Your task to perform on an android device: open the mobile data screen to see how much data has been used Image 0: 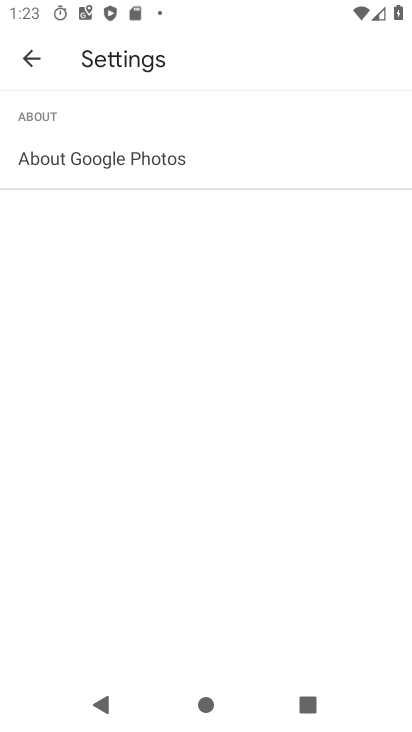
Step 0: press home button
Your task to perform on an android device: open the mobile data screen to see how much data has been used Image 1: 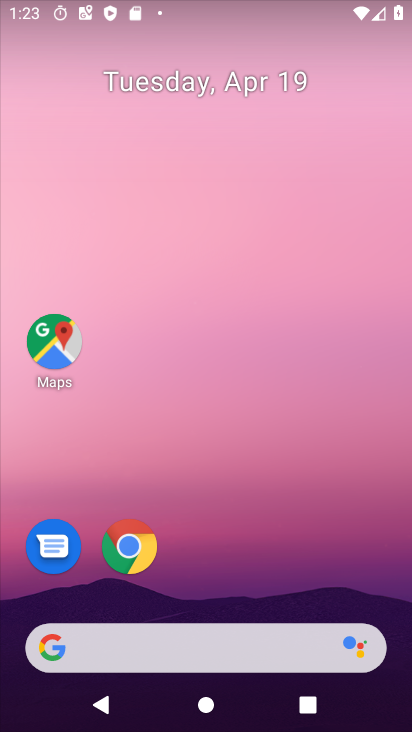
Step 1: drag from (212, 551) to (301, 30)
Your task to perform on an android device: open the mobile data screen to see how much data has been used Image 2: 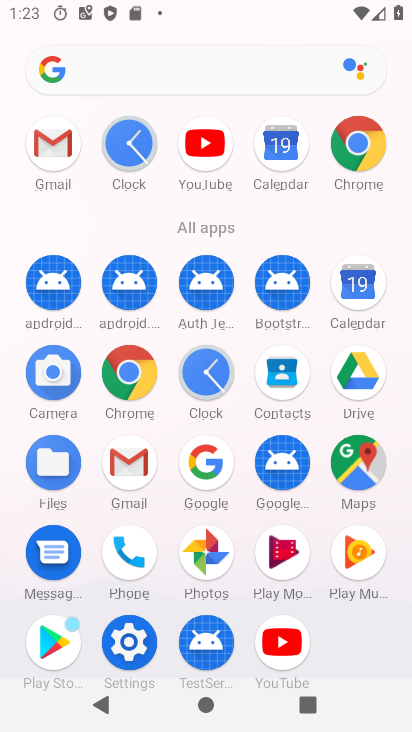
Step 2: click (137, 636)
Your task to perform on an android device: open the mobile data screen to see how much data has been used Image 3: 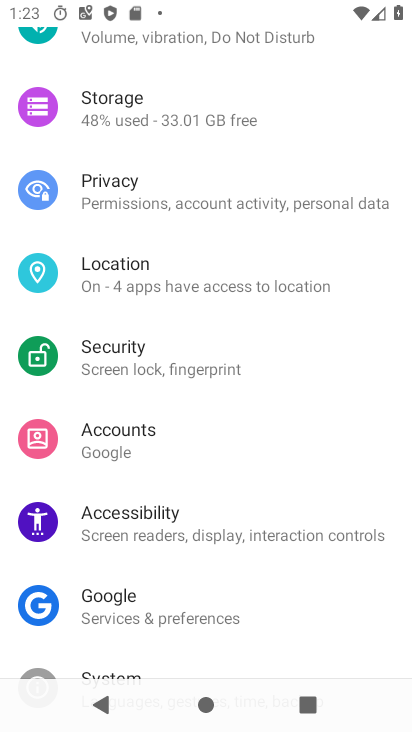
Step 3: drag from (229, 124) to (182, 686)
Your task to perform on an android device: open the mobile data screen to see how much data has been used Image 4: 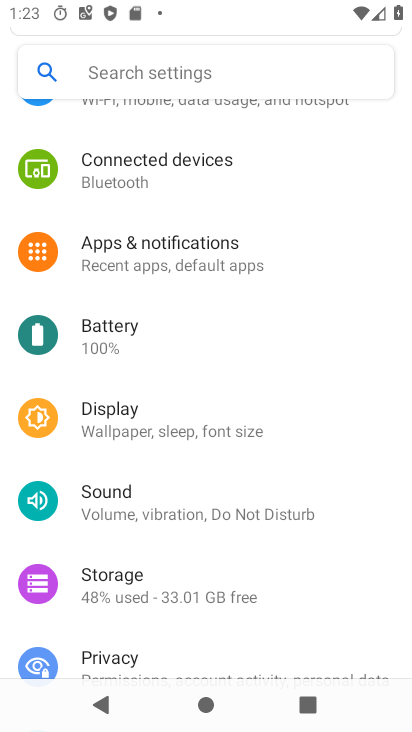
Step 4: drag from (212, 197) to (212, 686)
Your task to perform on an android device: open the mobile data screen to see how much data has been used Image 5: 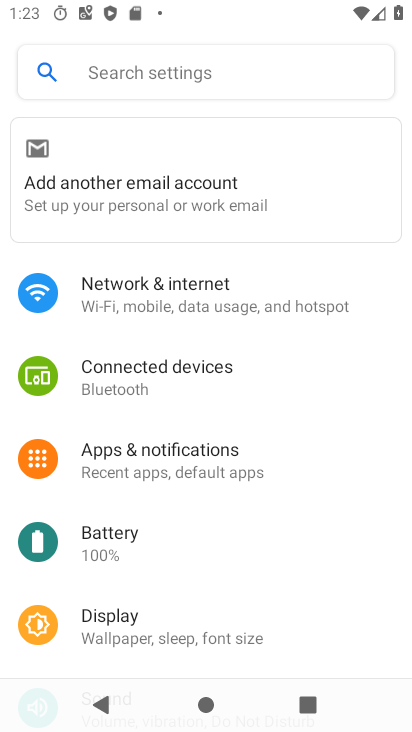
Step 5: click (193, 295)
Your task to perform on an android device: open the mobile data screen to see how much data has been used Image 6: 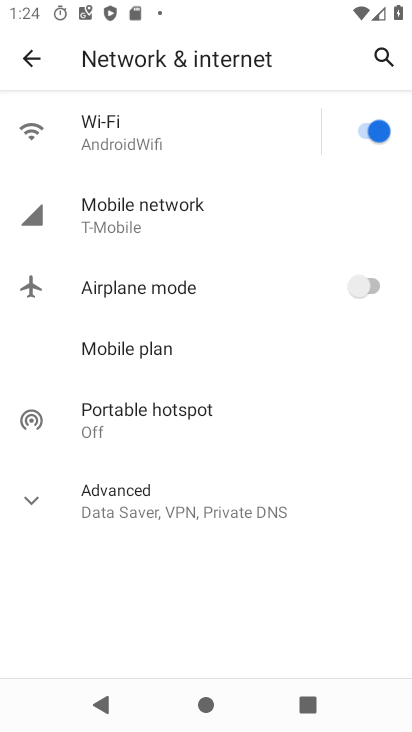
Step 6: click (191, 226)
Your task to perform on an android device: open the mobile data screen to see how much data has been used Image 7: 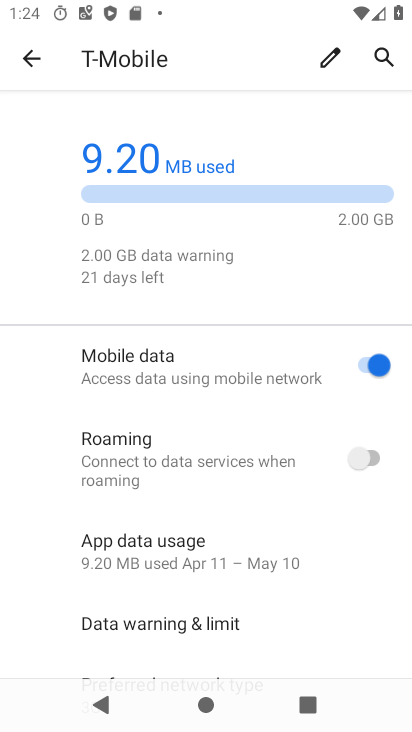
Step 7: click (168, 557)
Your task to perform on an android device: open the mobile data screen to see how much data has been used Image 8: 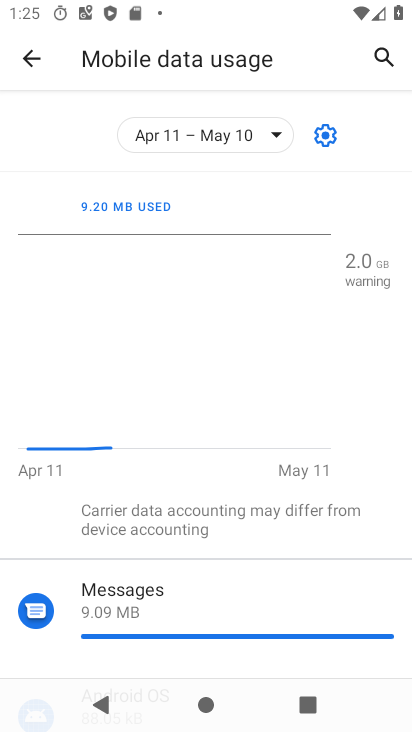
Step 8: task complete